Your task to perform on an android device: Go to notification settings Image 0: 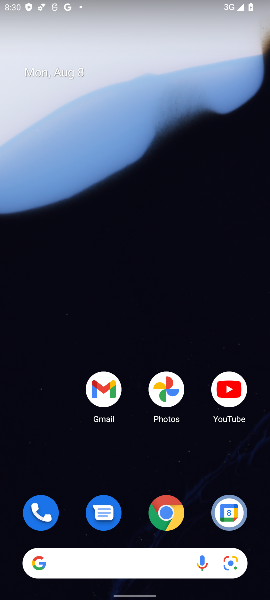
Step 0: drag from (52, 526) to (140, 159)
Your task to perform on an android device: Go to notification settings Image 1: 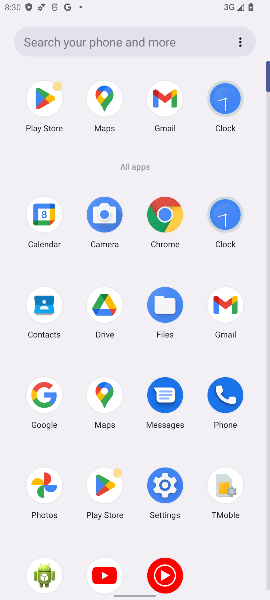
Step 1: click (158, 480)
Your task to perform on an android device: Go to notification settings Image 2: 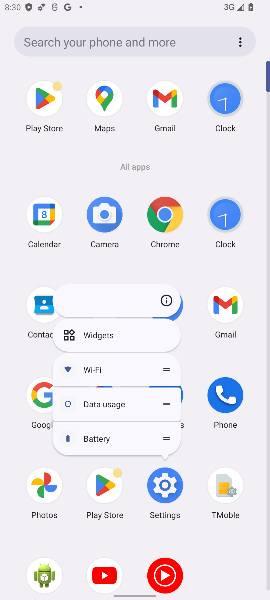
Step 2: click (158, 480)
Your task to perform on an android device: Go to notification settings Image 3: 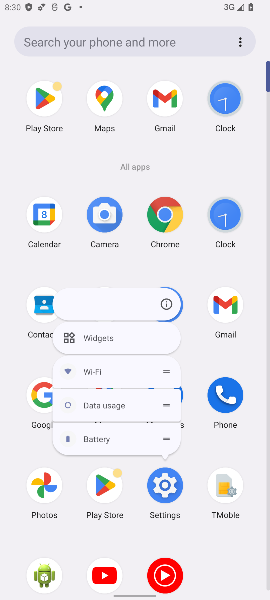
Step 3: click (158, 480)
Your task to perform on an android device: Go to notification settings Image 4: 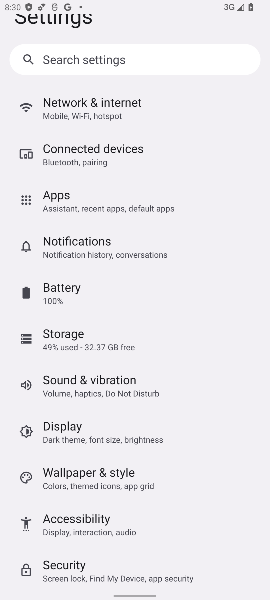
Step 4: click (141, 249)
Your task to perform on an android device: Go to notification settings Image 5: 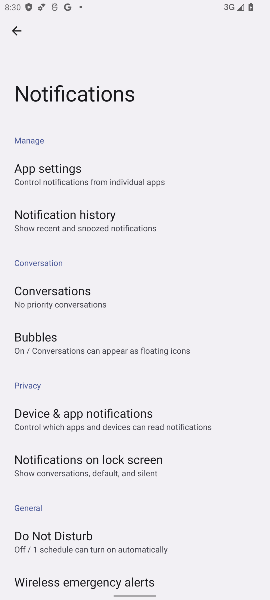
Step 5: task complete